Your task to perform on an android device: Open the map Image 0: 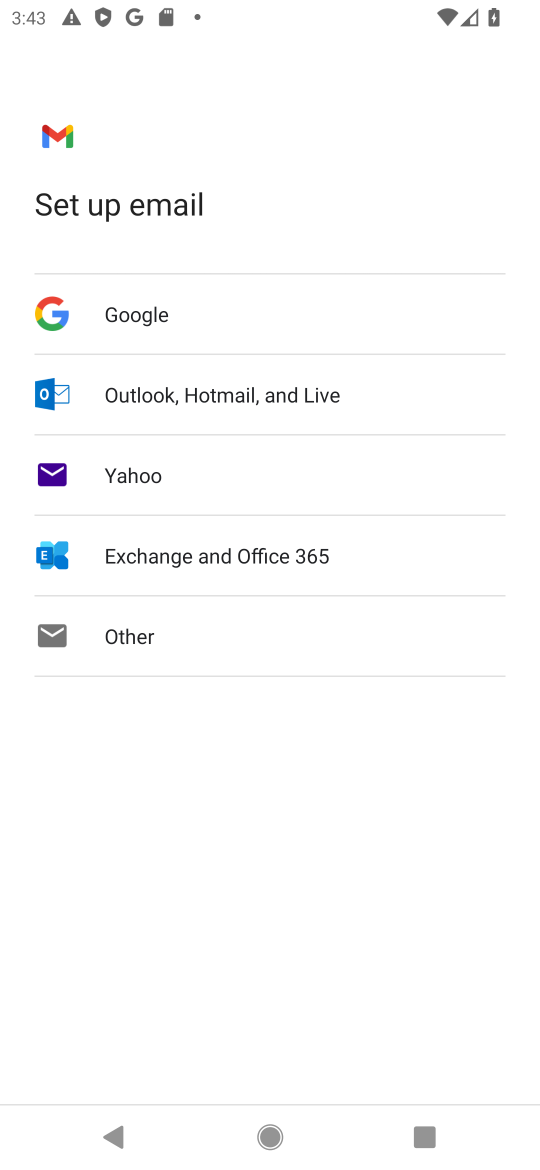
Step 0: press home button
Your task to perform on an android device: Open the map Image 1: 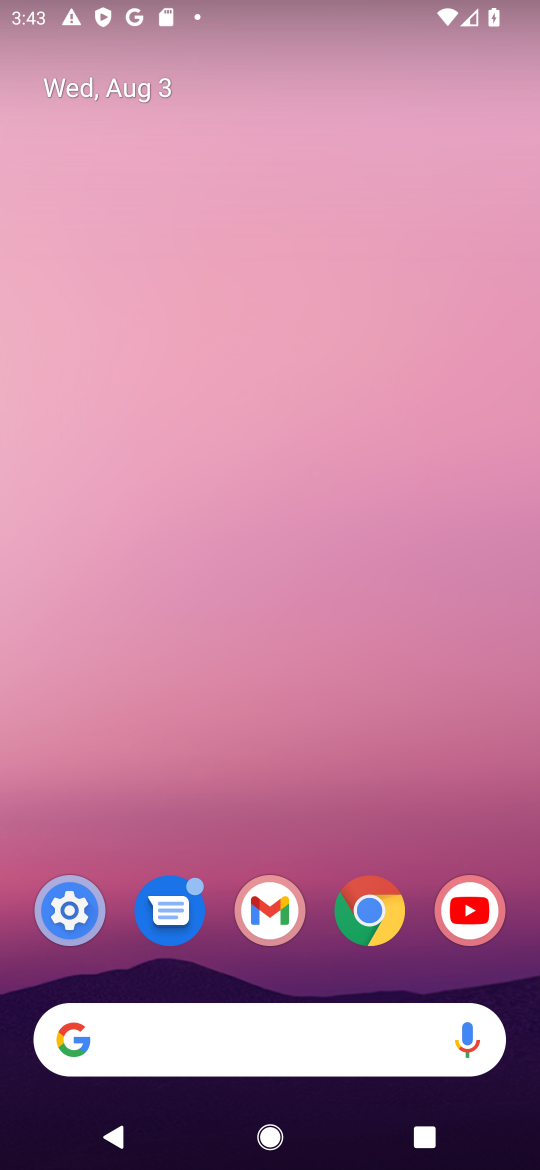
Step 1: drag from (263, 651) to (536, 672)
Your task to perform on an android device: Open the map Image 2: 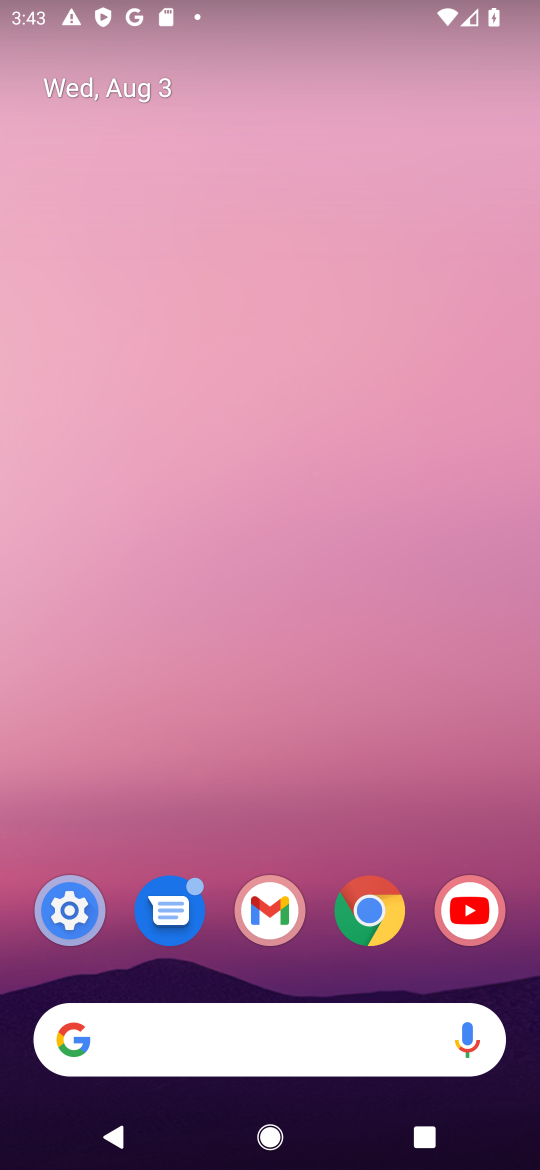
Step 2: drag from (63, 1124) to (465, 12)
Your task to perform on an android device: Open the map Image 3: 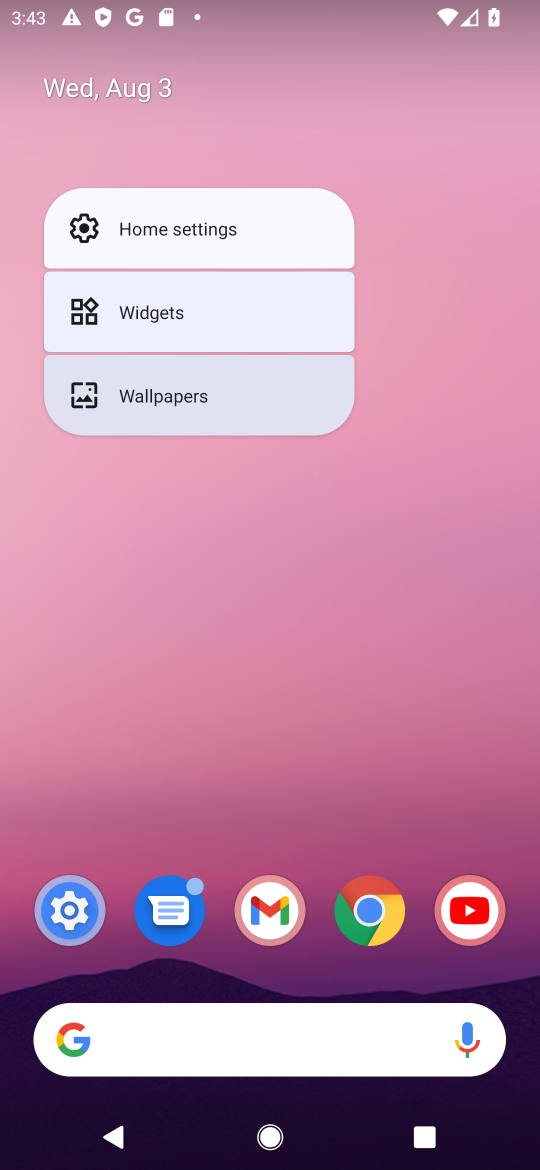
Step 3: drag from (78, 1136) to (355, 347)
Your task to perform on an android device: Open the map Image 4: 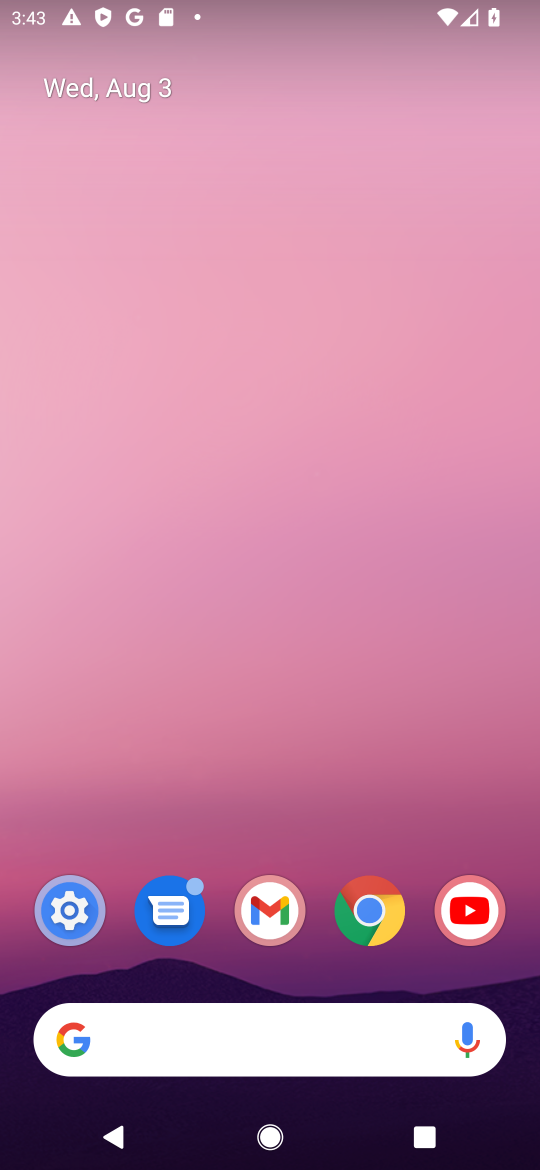
Step 4: drag from (68, 1113) to (328, 256)
Your task to perform on an android device: Open the map Image 5: 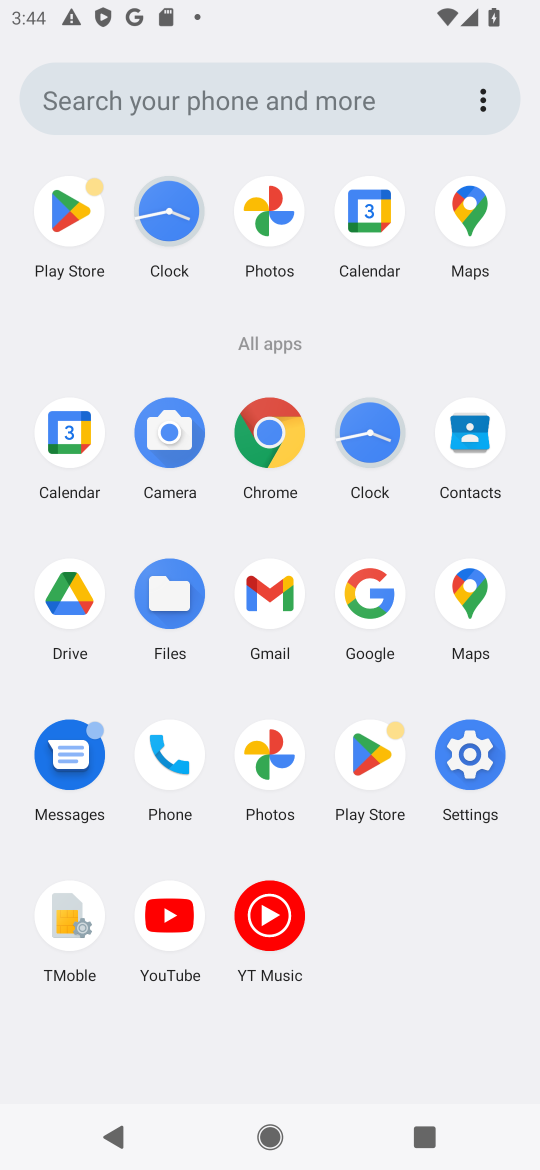
Step 5: click (463, 206)
Your task to perform on an android device: Open the map Image 6: 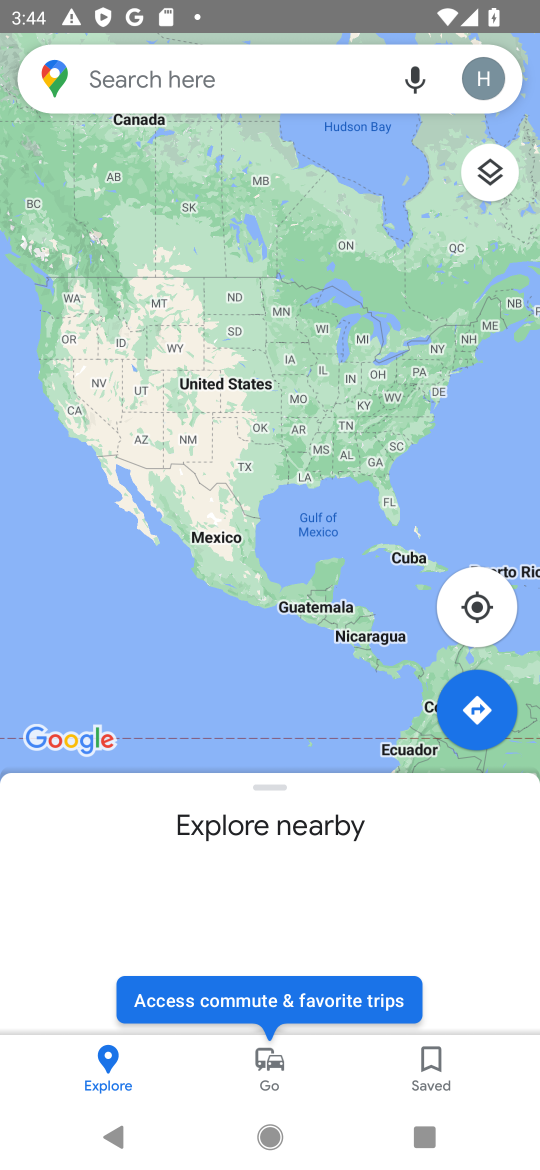
Step 6: task complete